Your task to perform on an android device: What's on my calendar tomorrow? Image 0: 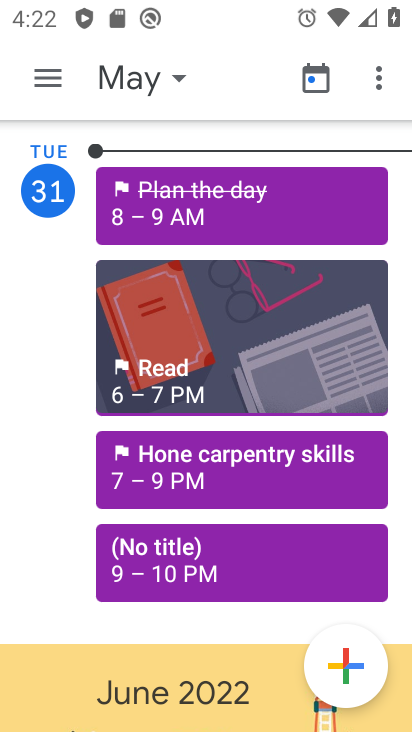
Step 0: press home button
Your task to perform on an android device: What's on my calendar tomorrow? Image 1: 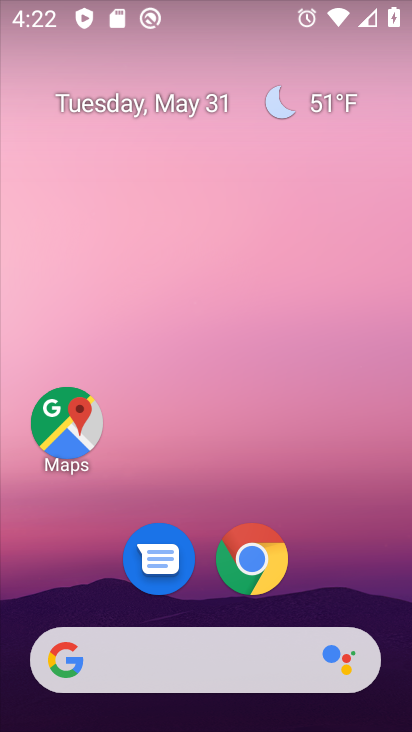
Step 1: drag from (210, 603) to (193, 0)
Your task to perform on an android device: What's on my calendar tomorrow? Image 2: 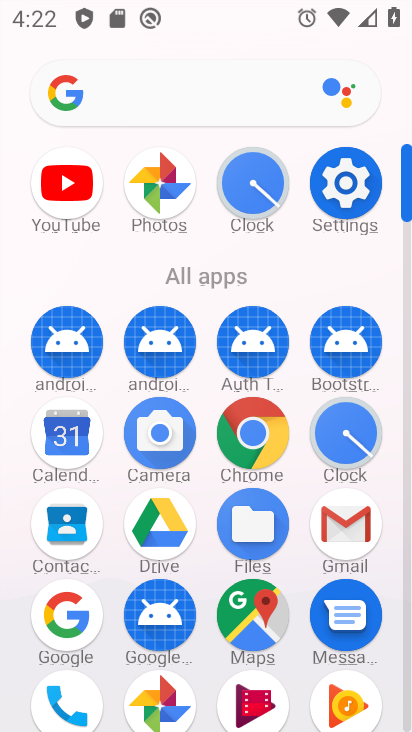
Step 2: click (66, 439)
Your task to perform on an android device: What's on my calendar tomorrow? Image 3: 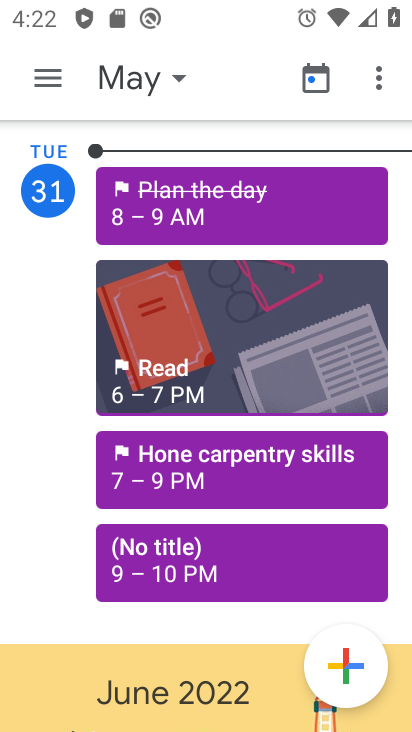
Step 3: click (144, 83)
Your task to perform on an android device: What's on my calendar tomorrow? Image 4: 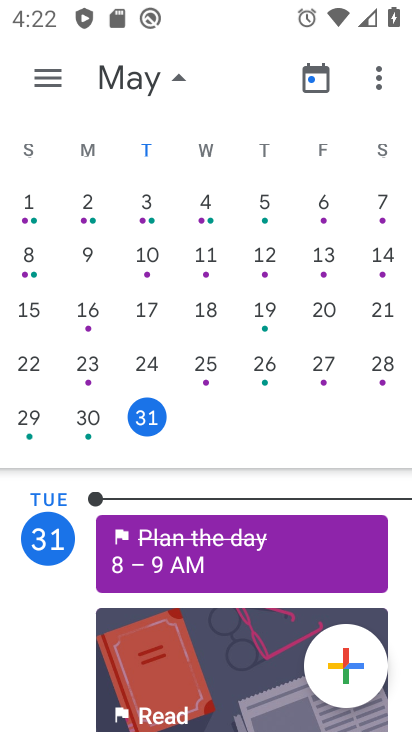
Step 4: task complete